Your task to perform on an android device: What's the weather? Image 0: 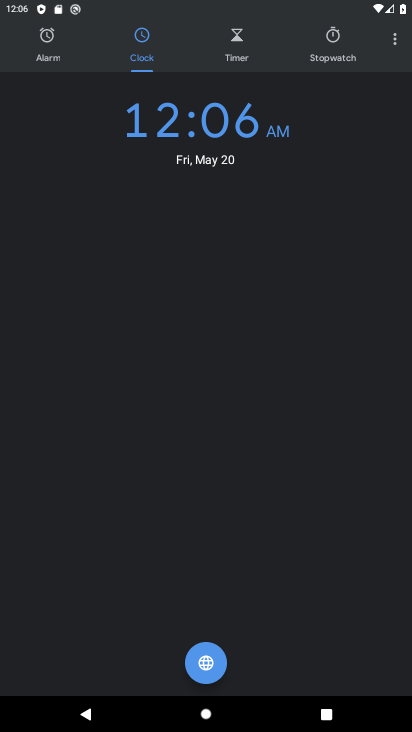
Step 0: press home button
Your task to perform on an android device: What's the weather? Image 1: 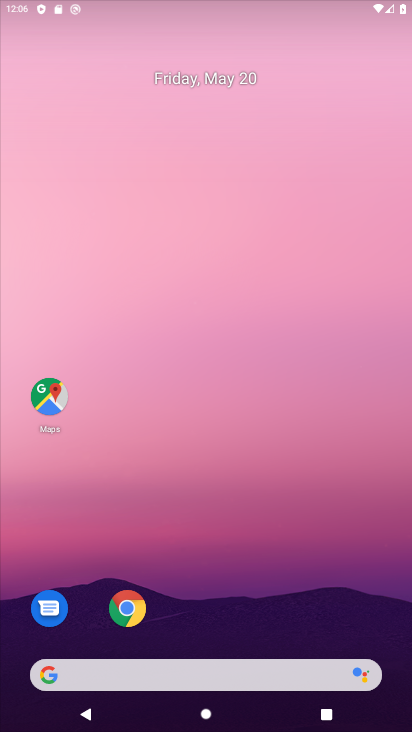
Step 1: drag from (284, 598) to (274, 114)
Your task to perform on an android device: What's the weather? Image 2: 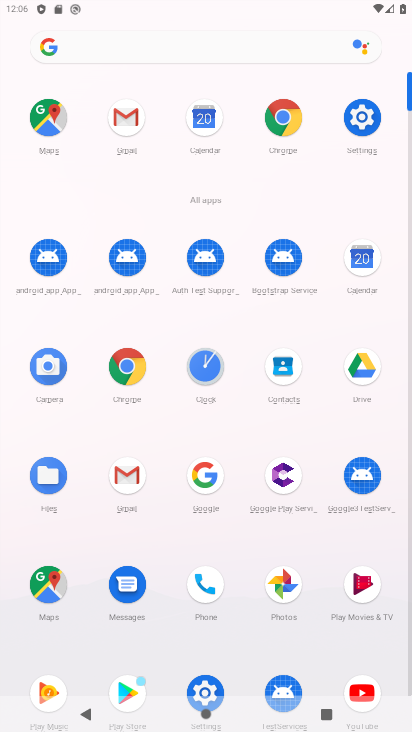
Step 2: click (114, 376)
Your task to perform on an android device: What's the weather? Image 3: 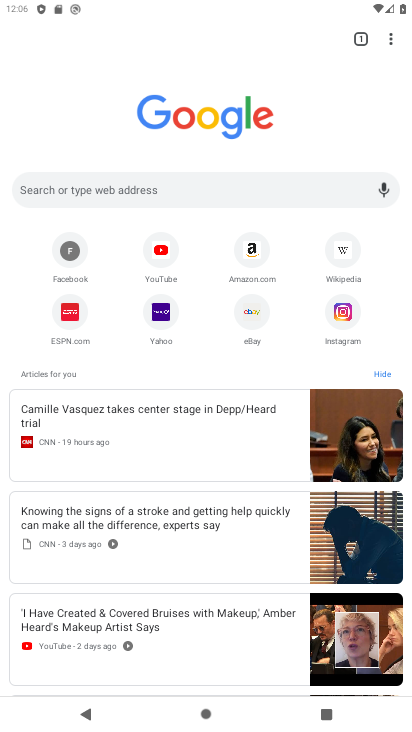
Step 3: click (158, 189)
Your task to perform on an android device: What's the weather? Image 4: 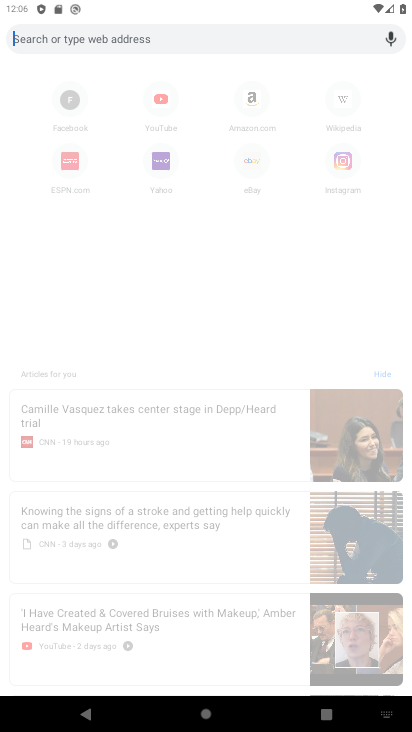
Step 4: type "what's the weather"
Your task to perform on an android device: What's the weather? Image 5: 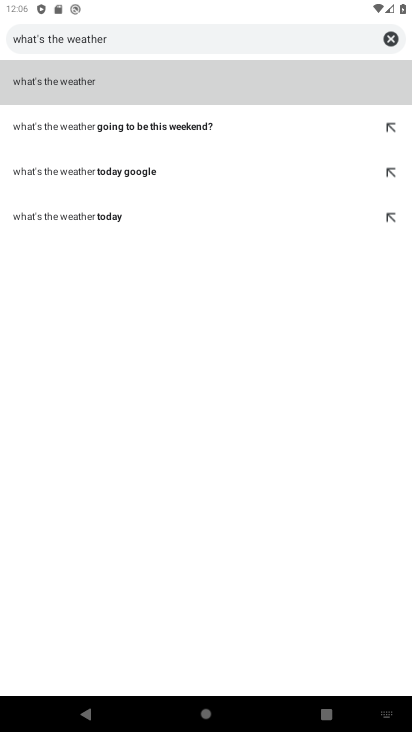
Step 5: click (71, 86)
Your task to perform on an android device: What's the weather? Image 6: 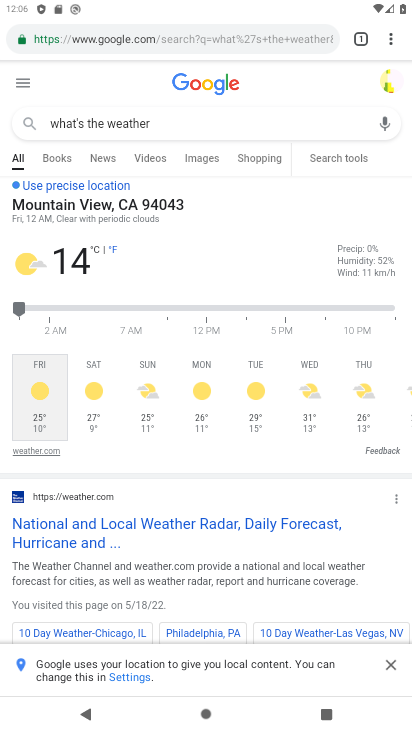
Step 6: task complete